Your task to perform on an android device: Open Chrome and go to settings Image 0: 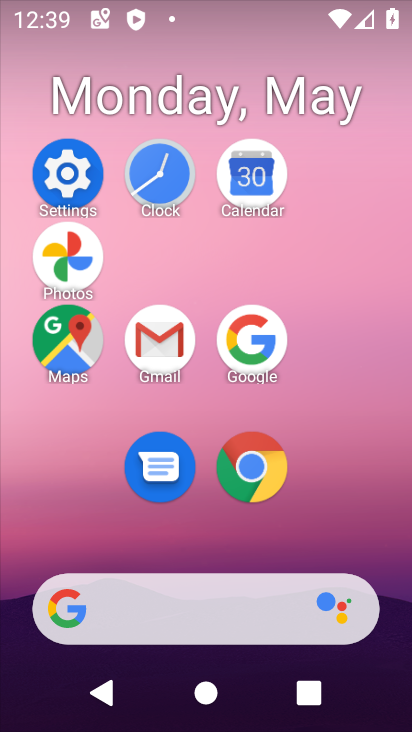
Step 0: click (278, 465)
Your task to perform on an android device: Open Chrome and go to settings Image 1: 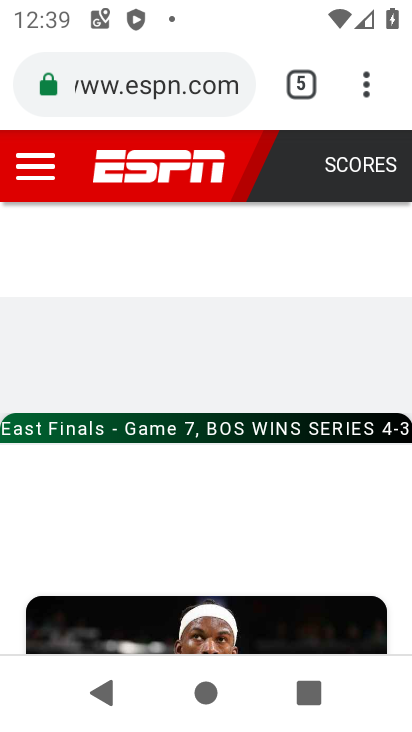
Step 1: click (373, 90)
Your task to perform on an android device: Open Chrome and go to settings Image 2: 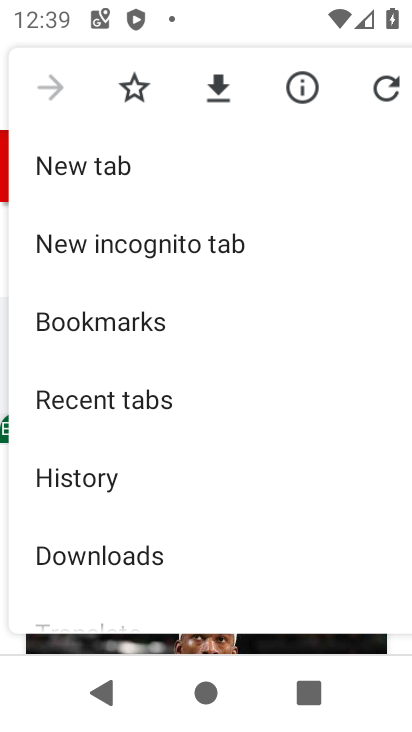
Step 2: drag from (307, 483) to (321, 33)
Your task to perform on an android device: Open Chrome and go to settings Image 3: 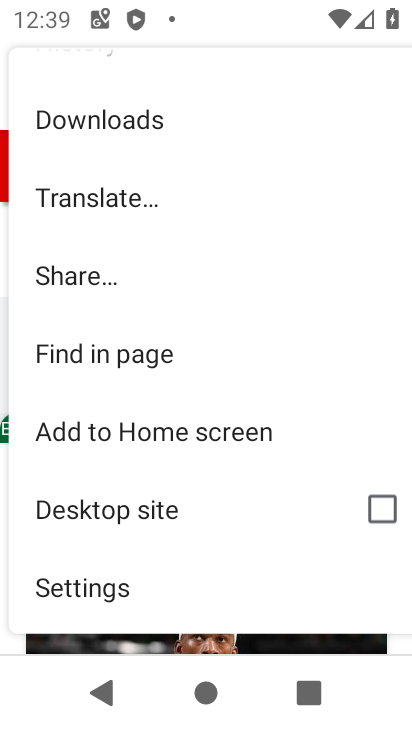
Step 3: click (161, 558)
Your task to perform on an android device: Open Chrome and go to settings Image 4: 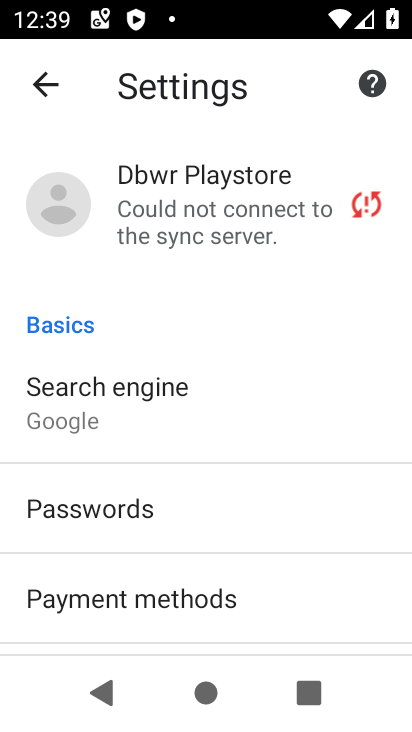
Step 4: task complete